Your task to perform on an android device: toggle pop-ups in chrome Image 0: 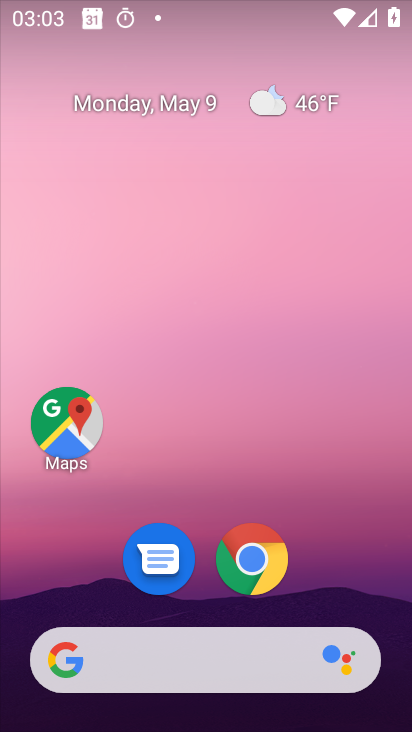
Step 0: click (253, 560)
Your task to perform on an android device: toggle pop-ups in chrome Image 1: 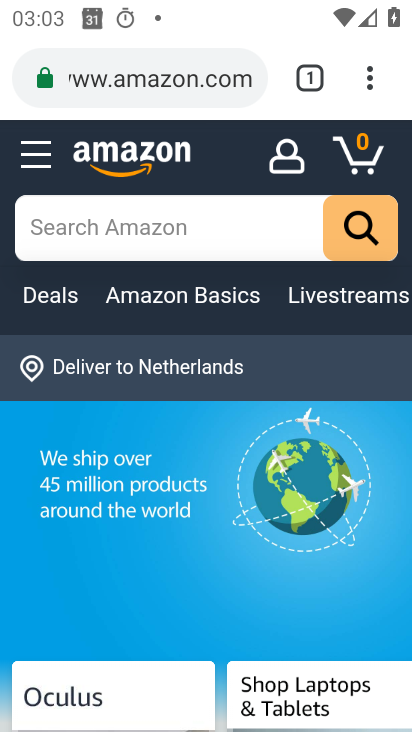
Step 1: click (371, 82)
Your task to perform on an android device: toggle pop-ups in chrome Image 2: 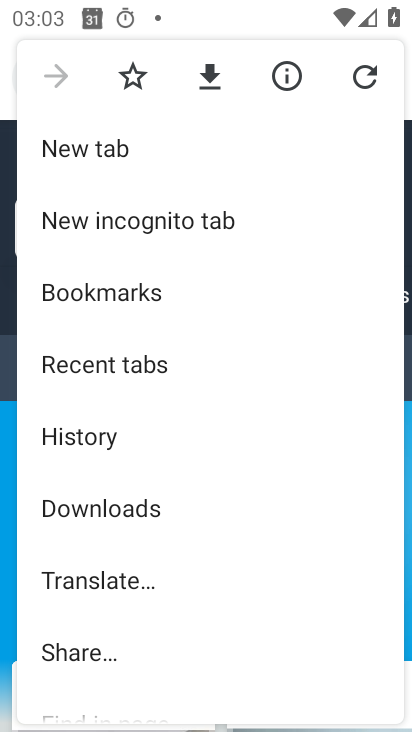
Step 2: drag from (182, 522) to (203, 378)
Your task to perform on an android device: toggle pop-ups in chrome Image 3: 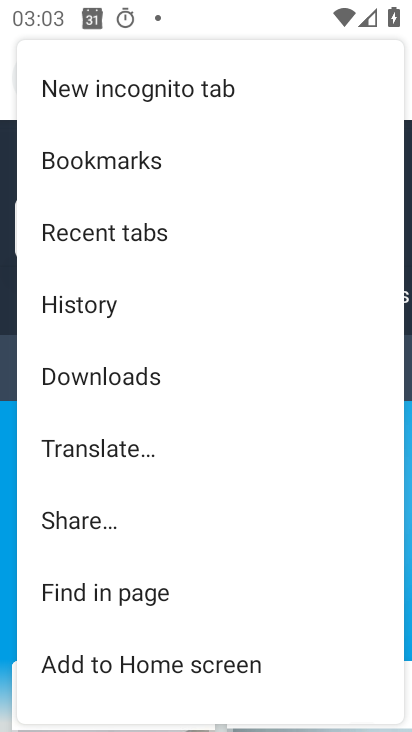
Step 3: drag from (175, 503) to (208, 401)
Your task to perform on an android device: toggle pop-ups in chrome Image 4: 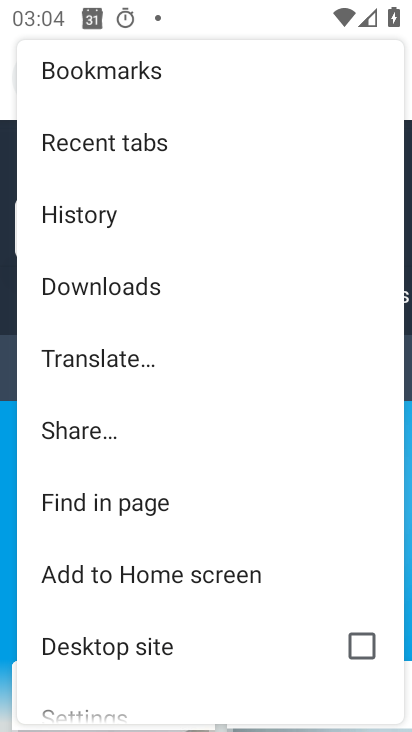
Step 4: drag from (182, 614) to (183, 502)
Your task to perform on an android device: toggle pop-ups in chrome Image 5: 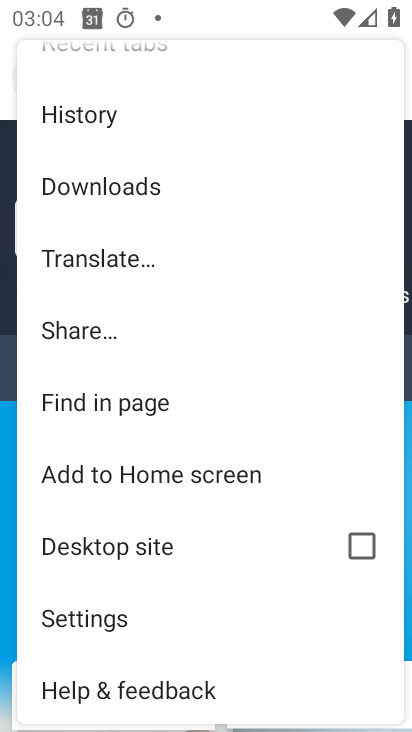
Step 5: click (96, 615)
Your task to perform on an android device: toggle pop-ups in chrome Image 6: 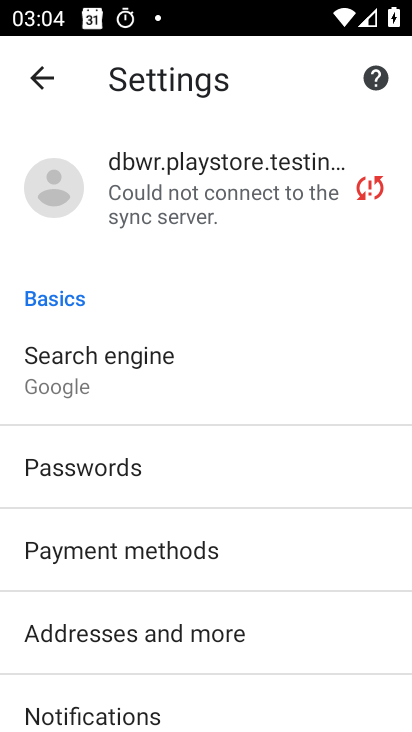
Step 6: drag from (186, 653) to (285, 473)
Your task to perform on an android device: toggle pop-ups in chrome Image 7: 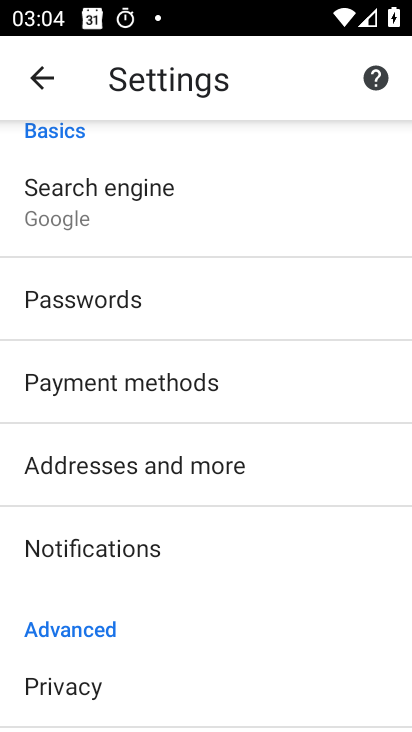
Step 7: drag from (208, 625) to (307, 491)
Your task to perform on an android device: toggle pop-ups in chrome Image 8: 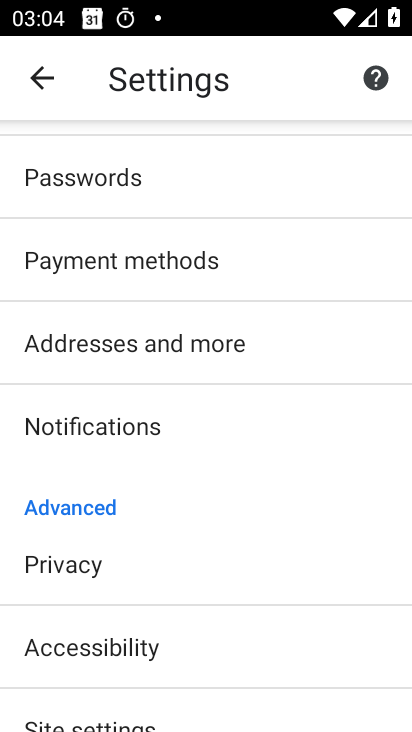
Step 8: drag from (230, 620) to (293, 498)
Your task to perform on an android device: toggle pop-ups in chrome Image 9: 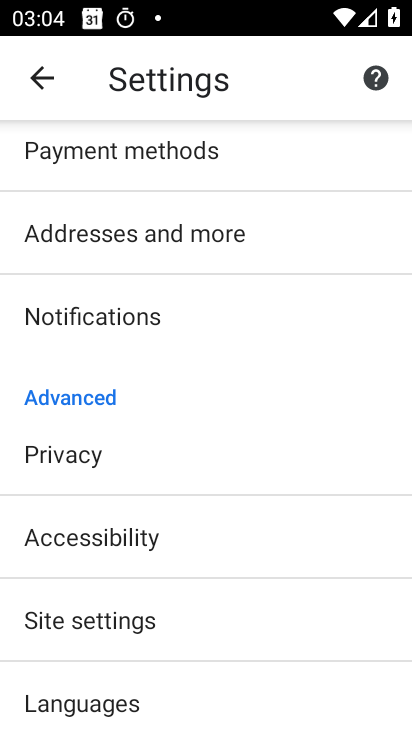
Step 9: click (142, 622)
Your task to perform on an android device: toggle pop-ups in chrome Image 10: 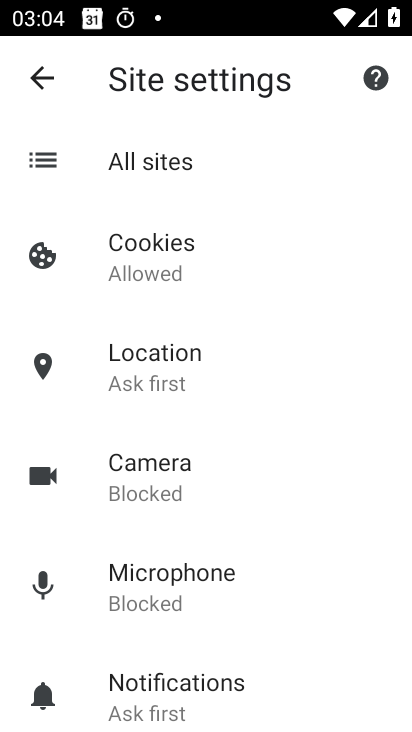
Step 10: drag from (234, 628) to (269, 485)
Your task to perform on an android device: toggle pop-ups in chrome Image 11: 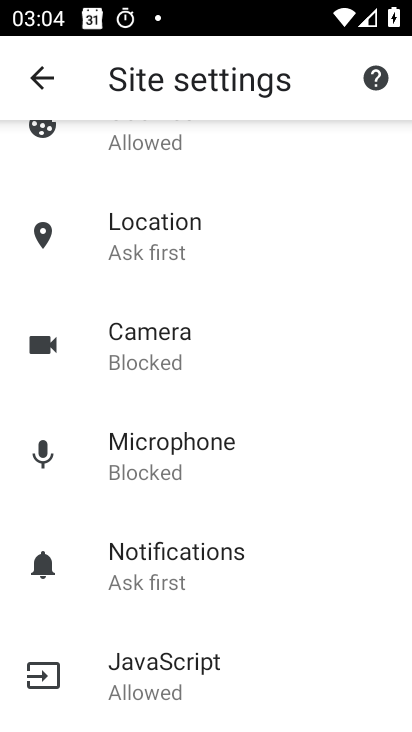
Step 11: drag from (253, 636) to (233, 508)
Your task to perform on an android device: toggle pop-ups in chrome Image 12: 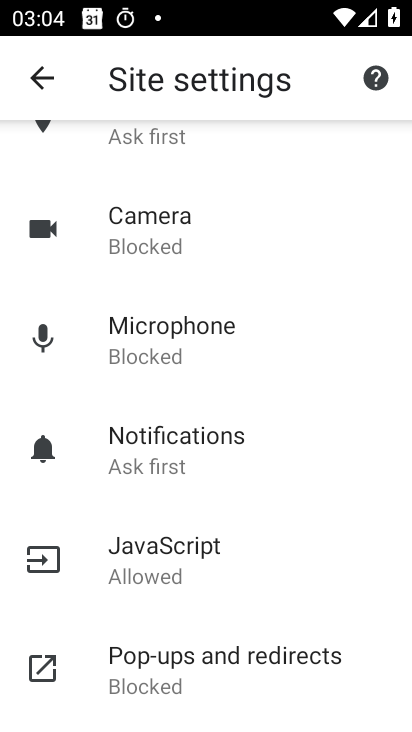
Step 12: click (196, 657)
Your task to perform on an android device: toggle pop-ups in chrome Image 13: 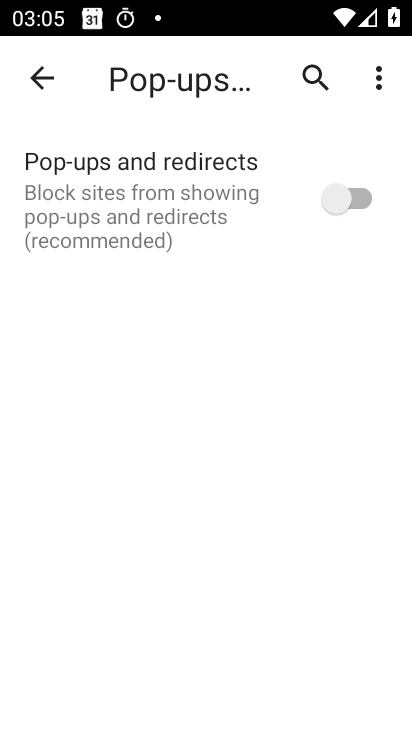
Step 13: click (347, 190)
Your task to perform on an android device: toggle pop-ups in chrome Image 14: 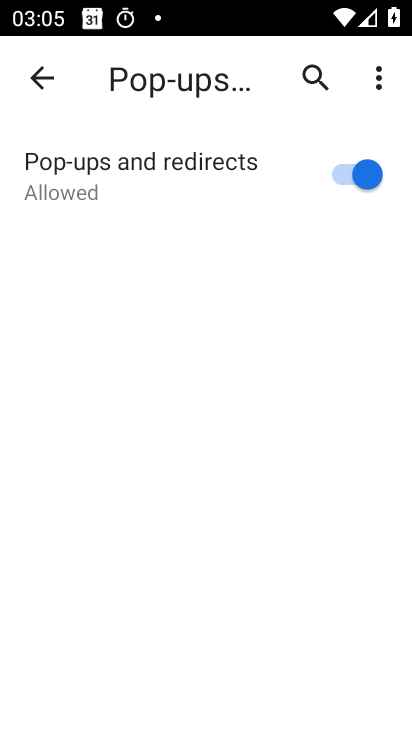
Step 14: task complete